Your task to perform on an android device: turn on the 24-hour format for clock Image 0: 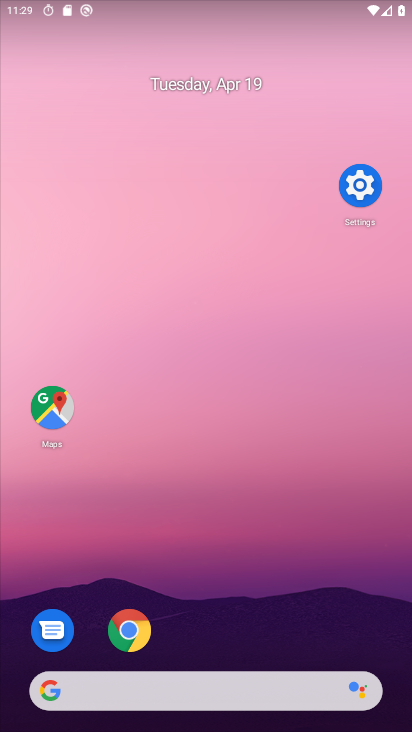
Step 0: drag from (241, 667) to (245, 225)
Your task to perform on an android device: turn on the 24-hour format for clock Image 1: 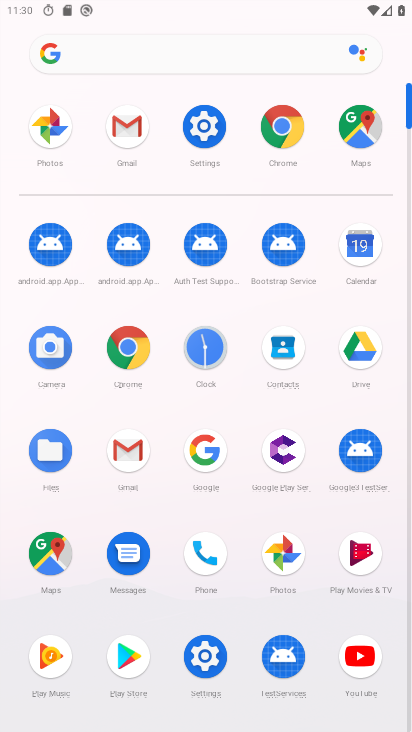
Step 1: click (200, 351)
Your task to perform on an android device: turn on the 24-hour format for clock Image 2: 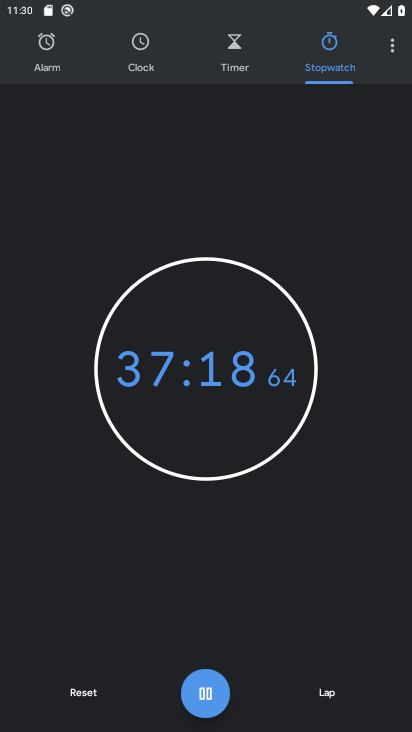
Step 2: click (399, 51)
Your task to perform on an android device: turn on the 24-hour format for clock Image 3: 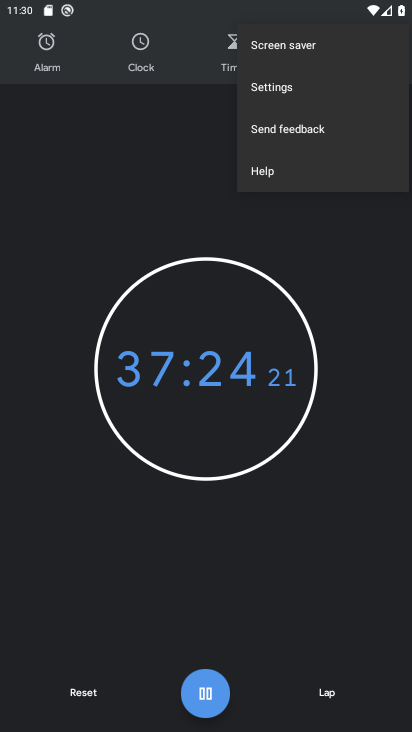
Step 3: click (334, 90)
Your task to perform on an android device: turn on the 24-hour format for clock Image 4: 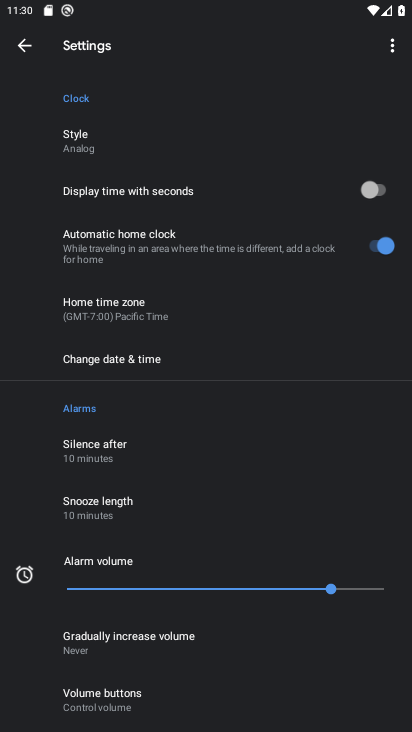
Step 4: click (227, 365)
Your task to perform on an android device: turn on the 24-hour format for clock Image 5: 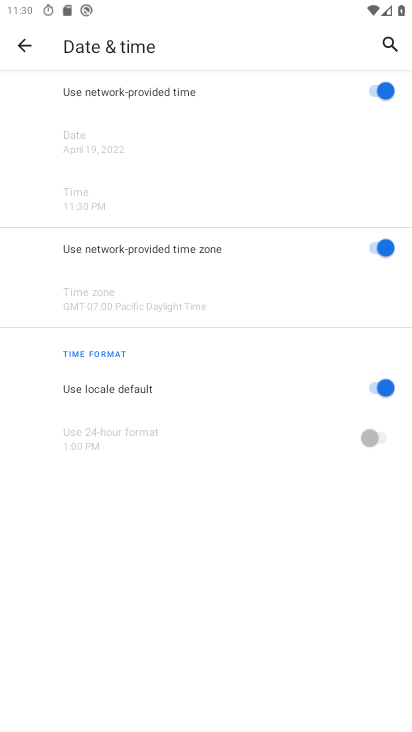
Step 5: task complete